Your task to perform on an android device: toggle sleep mode Image 0: 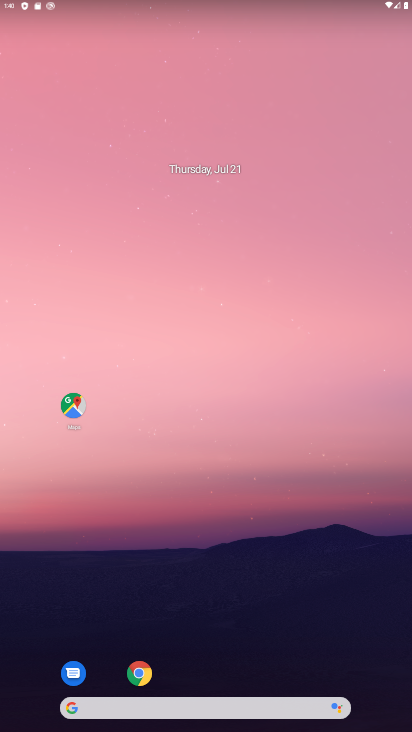
Step 0: drag from (206, 647) to (254, 265)
Your task to perform on an android device: toggle sleep mode Image 1: 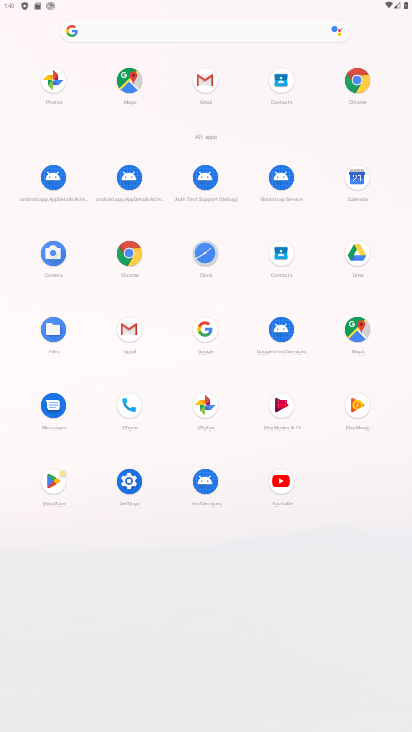
Step 1: click (132, 479)
Your task to perform on an android device: toggle sleep mode Image 2: 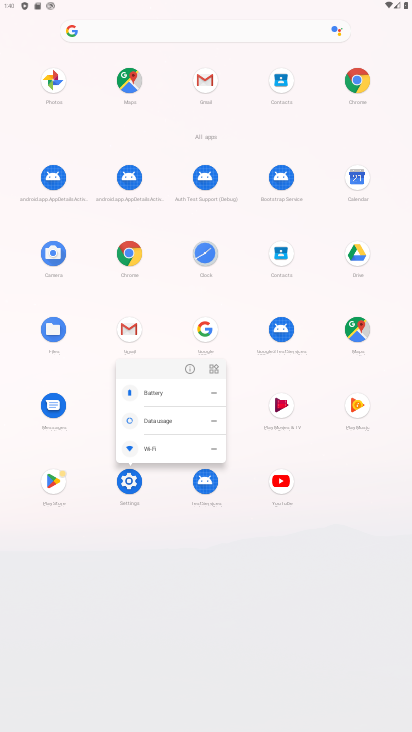
Step 2: click (128, 485)
Your task to perform on an android device: toggle sleep mode Image 3: 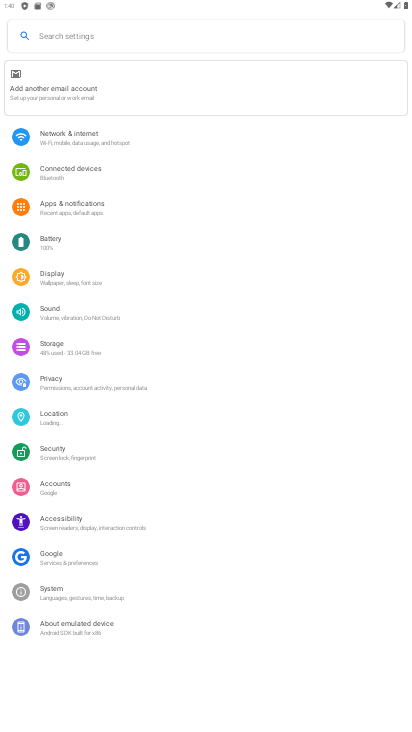
Step 3: task complete